Your task to perform on an android device: Open wifi settings Image 0: 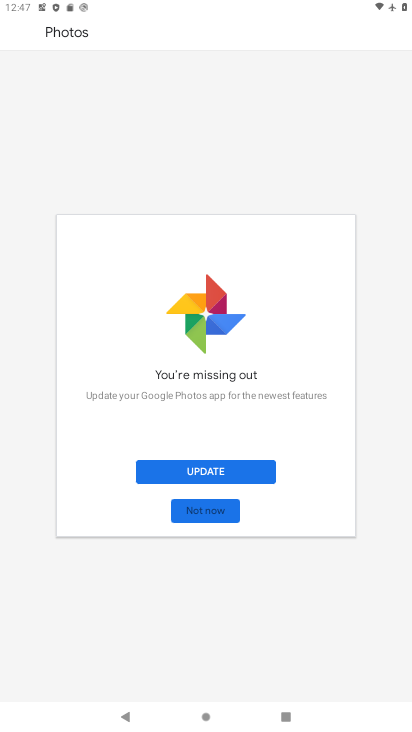
Step 0: press home button
Your task to perform on an android device: Open wifi settings Image 1: 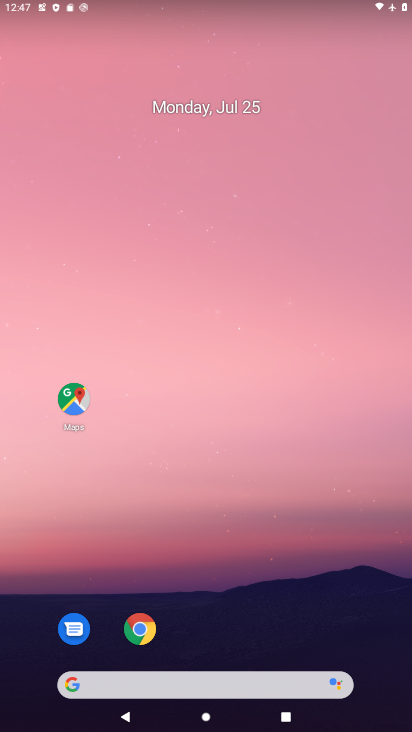
Step 1: drag from (227, 630) to (201, 2)
Your task to perform on an android device: Open wifi settings Image 2: 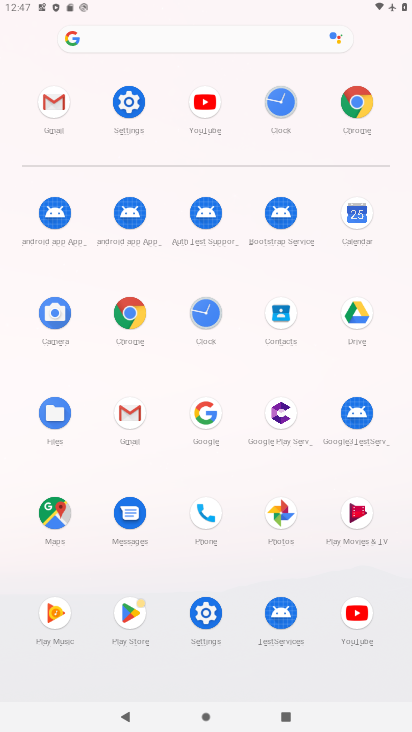
Step 2: click (107, 117)
Your task to perform on an android device: Open wifi settings Image 3: 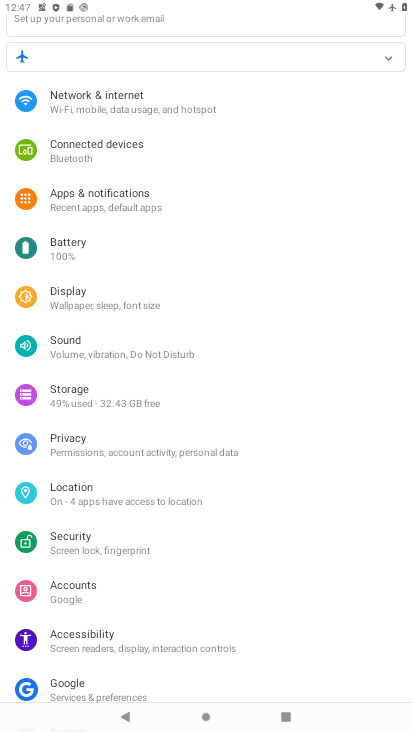
Step 3: click (110, 114)
Your task to perform on an android device: Open wifi settings Image 4: 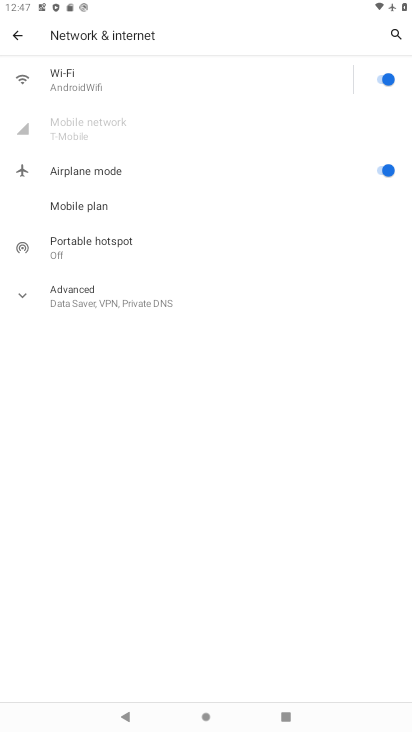
Step 4: task complete